Your task to perform on an android device: change timer sound Image 0: 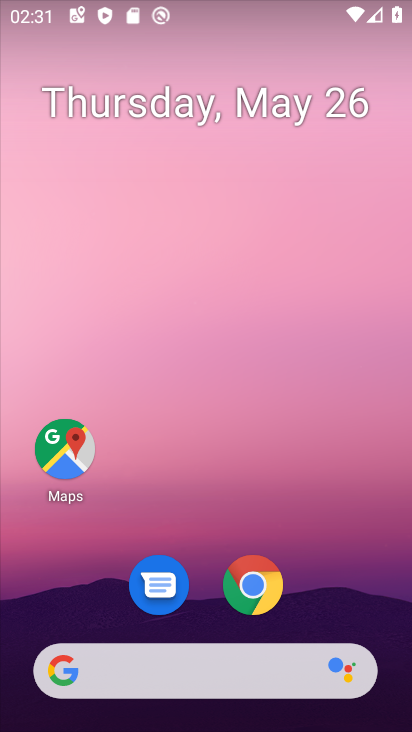
Step 0: drag from (209, 477) to (256, 27)
Your task to perform on an android device: change timer sound Image 1: 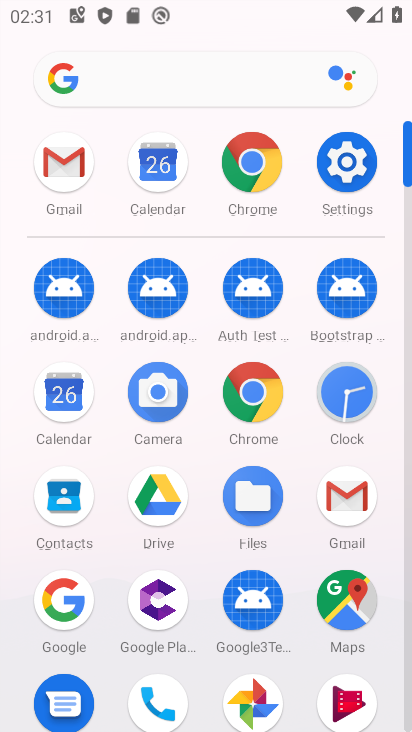
Step 1: click (352, 402)
Your task to perform on an android device: change timer sound Image 2: 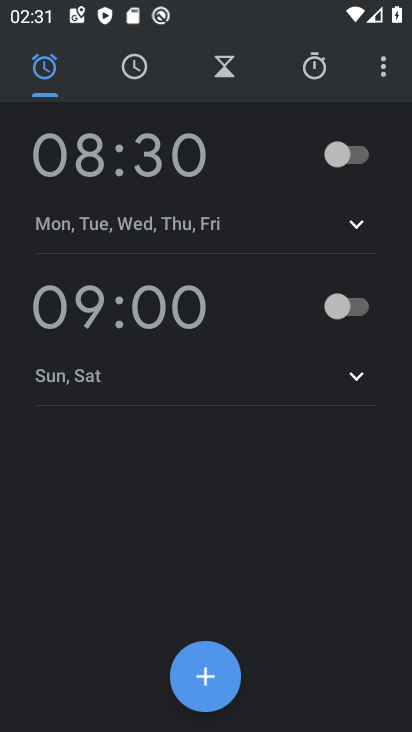
Step 2: click (376, 68)
Your task to perform on an android device: change timer sound Image 3: 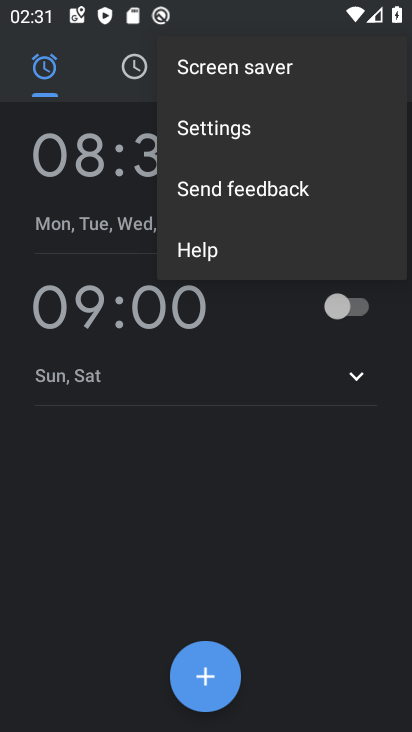
Step 3: click (275, 118)
Your task to perform on an android device: change timer sound Image 4: 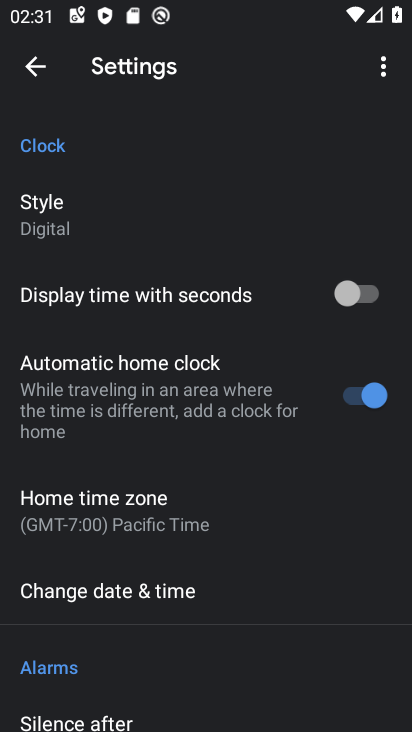
Step 4: drag from (255, 536) to (248, 118)
Your task to perform on an android device: change timer sound Image 5: 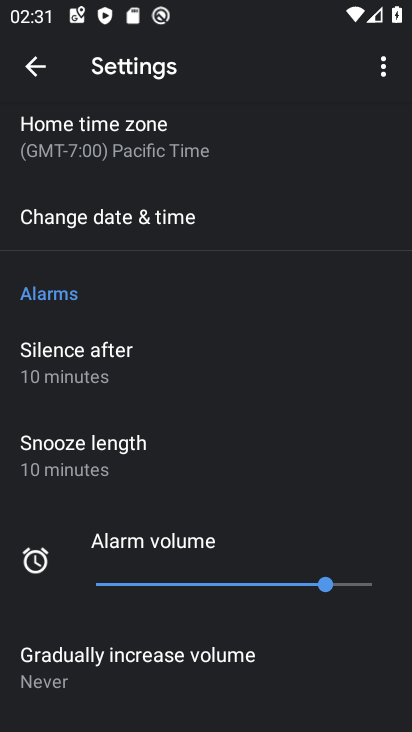
Step 5: drag from (230, 422) to (258, 108)
Your task to perform on an android device: change timer sound Image 6: 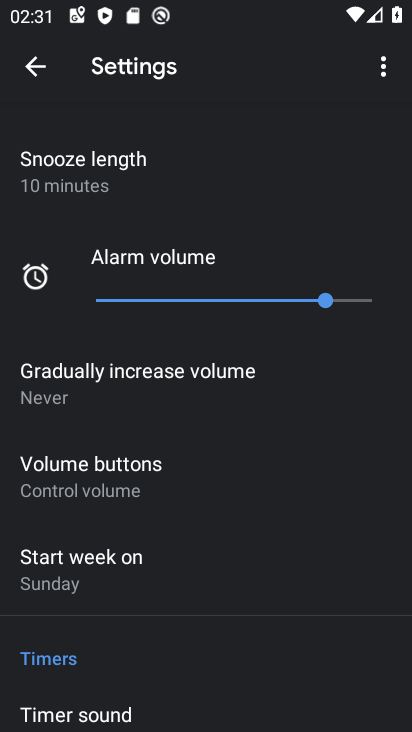
Step 6: drag from (201, 470) to (231, 189)
Your task to perform on an android device: change timer sound Image 7: 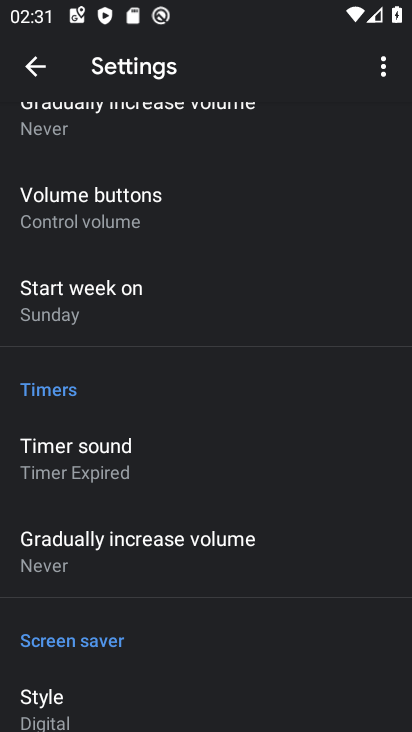
Step 7: click (111, 456)
Your task to perform on an android device: change timer sound Image 8: 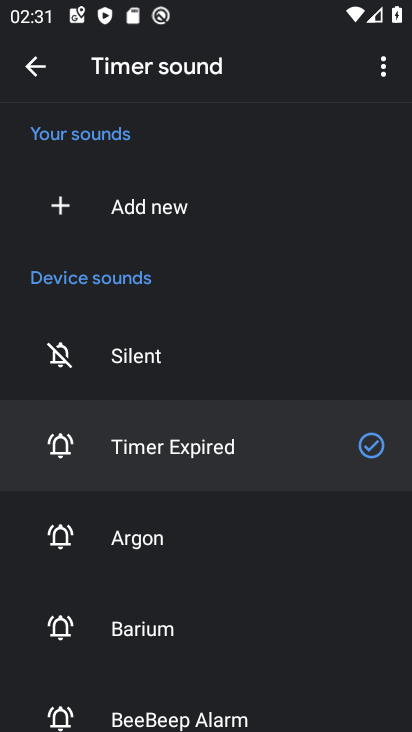
Step 8: click (126, 528)
Your task to perform on an android device: change timer sound Image 9: 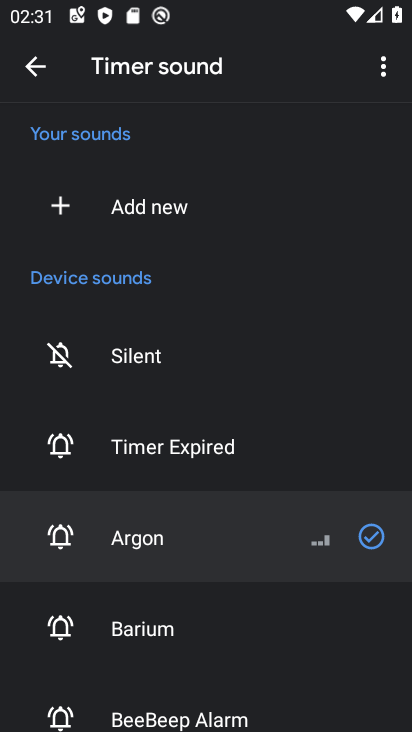
Step 9: task complete